Your task to perform on an android device: Open Chrome and go to settings Image 0: 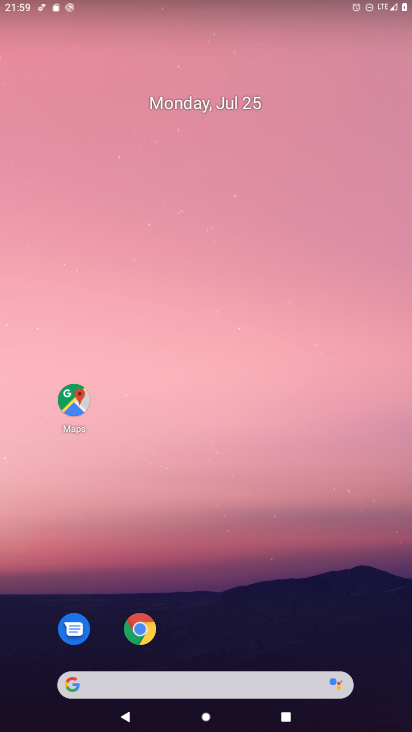
Step 0: click (142, 631)
Your task to perform on an android device: Open Chrome and go to settings Image 1: 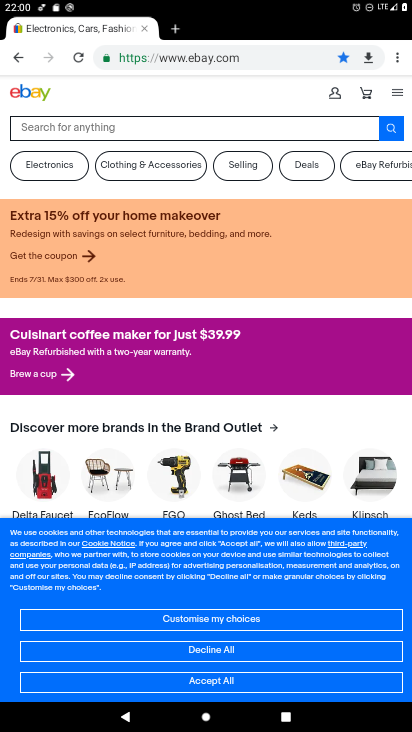
Step 1: click (394, 58)
Your task to perform on an android device: Open Chrome and go to settings Image 2: 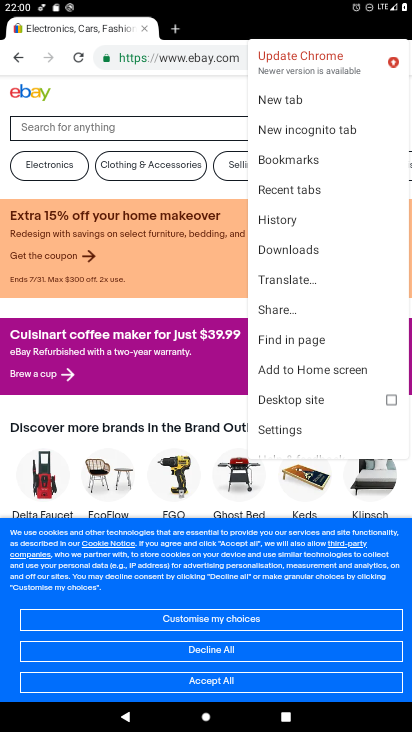
Step 2: click (283, 429)
Your task to perform on an android device: Open Chrome and go to settings Image 3: 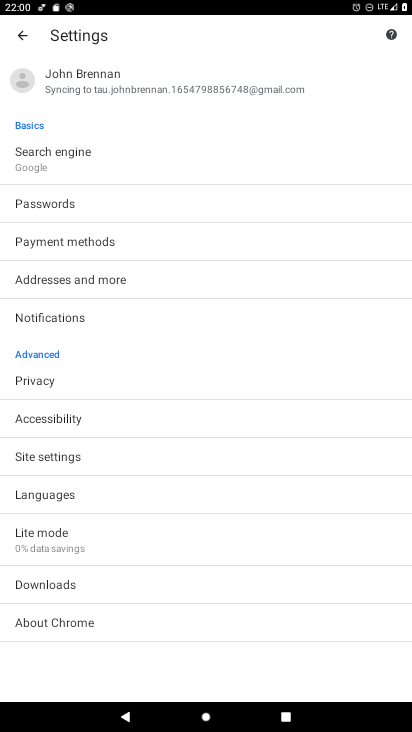
Step 3: task complete